Your task to perform on an android device: View the shopping cart on newegg.com. Add "logitech g pro" to the cart on newegg.com, then select checkout. Image 0: 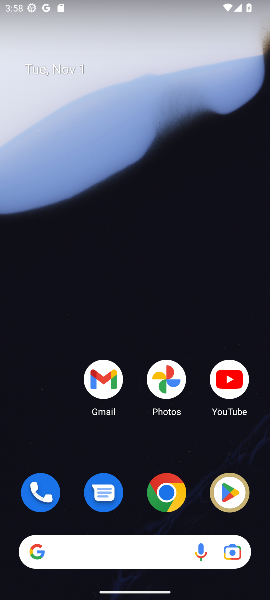
Step 0: click (161, 499)
Your task to perform on an android device: View the shopping cart on newegg.com. Add "logitech g pro" to the cart on newegg.com, then select checkout. Image 1: 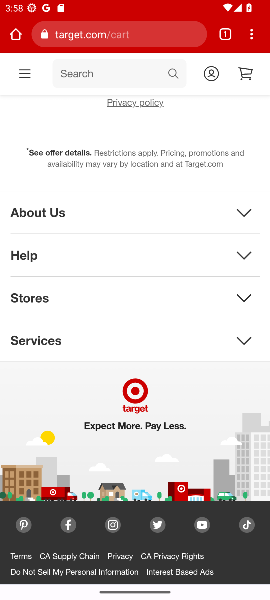
Step 1: click (159, 32)
Your task to perform on an android device: View the shopping cart on newegg.com. Add "logitech g pro" to the cart on newegg.com, then select checkout. Image 2: 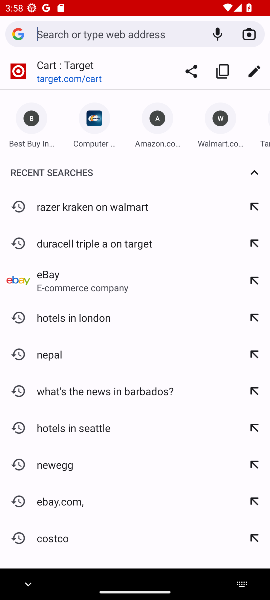
Step 2: type "newegg.com"
Your task to perform on an android device: View the shopping cart on newegg.com. Add "logitech g pro" to the cart on newegg.com, then select checkout. Image 3: 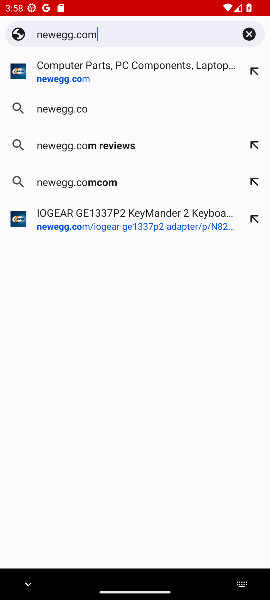
Step 3: type ""
Your task to perform on an android device: View the shopping cart on newegg.com. Add "logitech g pro" to the cart on newegg.com, then select checkout. Image 4: 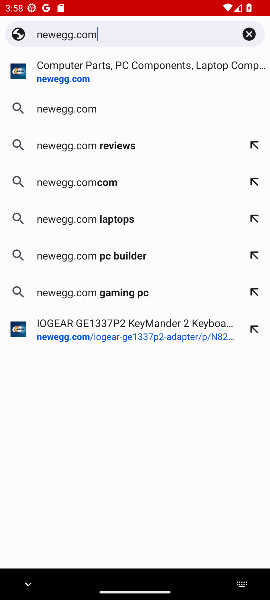
Step 4: click (160, 66)
Your task to perform on an android device: View the shopping cart on newegg.com. Add "logitech g pro" to the cart on newegg.com, then select checkout. Image 5: 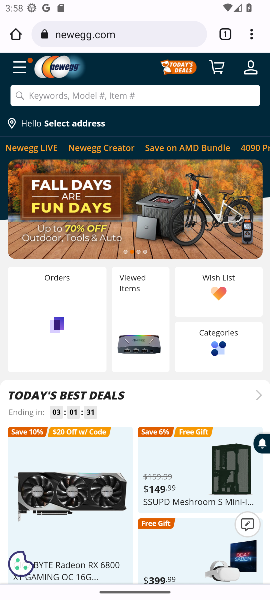
Step 5: click (117, 97)
Your task to perform on an android device: View the shopping cart on newegg.com. Add "logitech g pro" to the cart on newegg.com, then select checkout. Image 6: 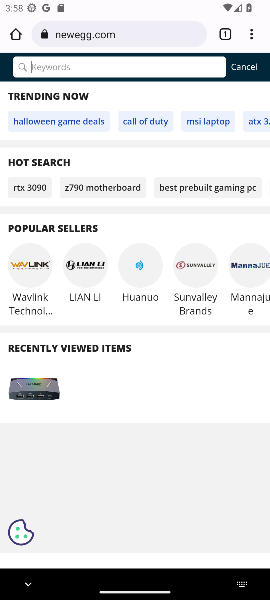
Step 6: type "logitech g pro"
Your task to perform on an android device: View the shopping cart on newegg.com. Add "logitech g pro" to the cart on newegg.com, then select checkout. Image 7: 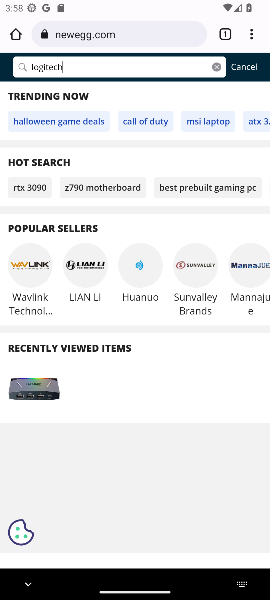
Step 7: type ""
Your task to perform on an android device: View the shopping cart on newegg.com. Add "logitech g pro" to the cart on newegg.com, then select checkout. Image 8: 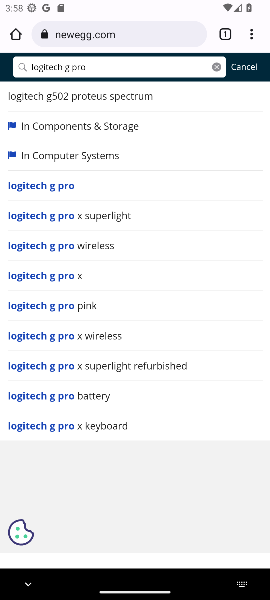
Step 8: click (72, 185)
Your task to perform on an android device: View the shopping cart on newegg.com. Add "logitech g pro" to the cart on newegg.com, then select checkout. Image 9: 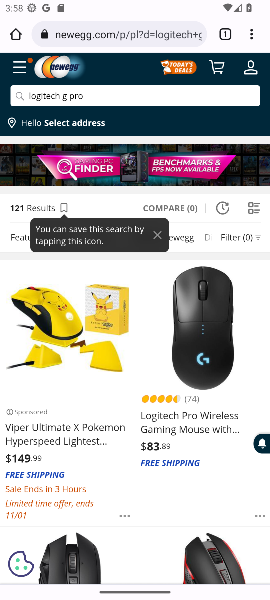
Step 9: drag from (213, 399) to (213, 259)
Your task to perform on an android device: View the shopping cart on newegg.com. Add "logitech g pro" to the cart on newegg.com, then select checkout. Image 10: 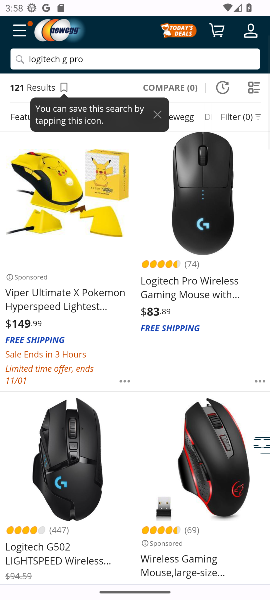
Step 10: drag from (95, 464) to (138, 315)
Your task to perform on an android device: View the shopping cart on newegg.com. Add "logitech g pro" to the cart on newegg.com, then select checkout. Image 11: 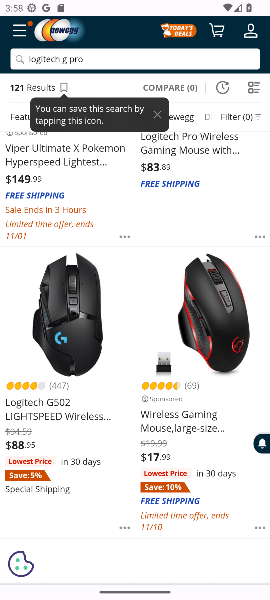
Step 11: drag from (119, 287) to (110, 477)
Your task to perform on an android device: View the shopping cart on newegg.com. Add "logitech g pro" to the cart on newegg.com, then select checkout. Image 12: 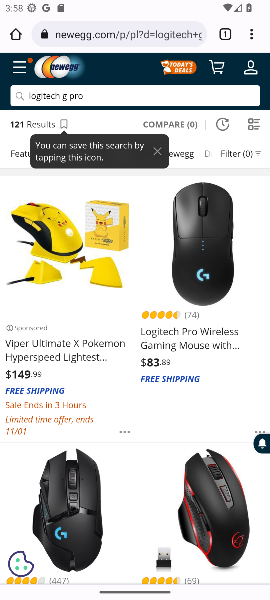
Step 12: click (217, 278)
Your task to perform on an android device: View the shopping cart on newegg.com. Add "logitech g pro" to the cart on newegg.com, then select checkout. Image 13: 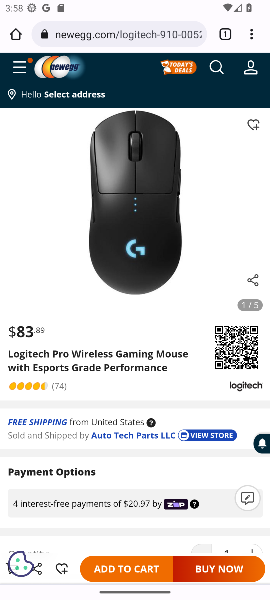
Step 13: click (130, 570)
Your task to perform on an android device: View the shopping cart on newegg.com. Add "logitech g pro" to the cart on newegg.com, then select checkout. Image 14: 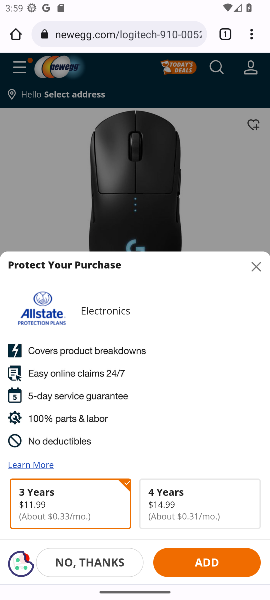
Step 14: click (199, 569)
Your task to perform on an android device: View the shopping cart on newegg.com. Add "logitech g pro" to the cart on newegg.com, then select checkout. Image 15: 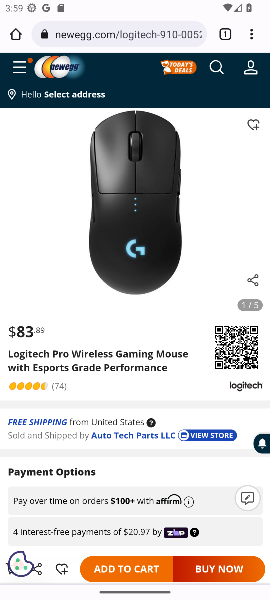
Step 15: drag from (120, 540) to (103, 398)
Your task to perform on an android device: View the shopping cart on newegg.com. Add "logitech g pro" to the cart on newegg.com, then select checkout. Image 16: 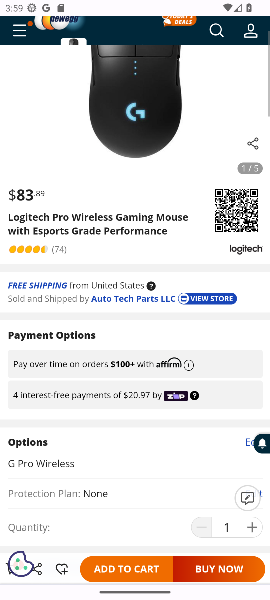
Step 16: drag from (101, 484) to (127, 382)
Your task to perform on an android device: View the shopping cart on newegg.com. Add "logitech g pro" to the cart on newegg.com, then select checkout. Image 17: 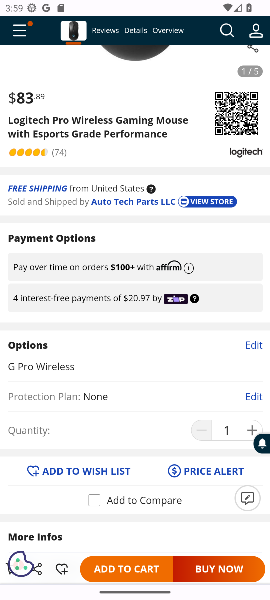
Step 17: drag from (78, 489) to (117, 341)
Your task to perform on an android device: View the shopping cart on newegg.com. Add "logitech g pro" to the cart on newegg.com, then select checkout. Image 18: 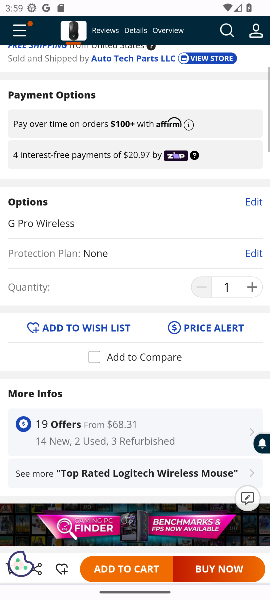
Step 18: drag from (123, 483) to (153, 310)
Your task to perform on an android device: View the shopping cart on newegg.com. Add "logitech g pro" to the cart on newegg.com, then select checkout. Image 19: 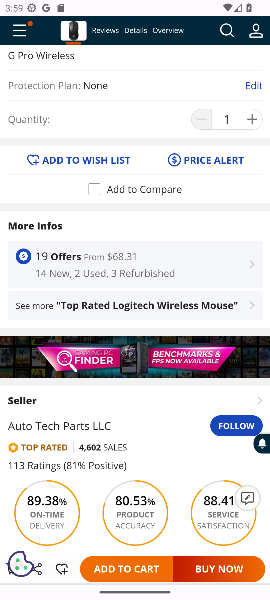
Step 19: drag from (151, 313) to (156, 481)
Your task to perform on an android device: View the shopping cart on newegg.com. Add "logitech g pro" to the cart on newegg.com, then select checkout. Image 20: 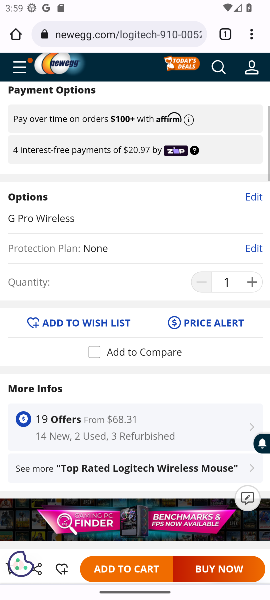
Step 20: drag from (145, 300) to (146, 458)
Your task to perform on an android device: View the shopping cart on newegg.com. Add "logitech g pro" to the cart on newegg.com, then select checkout. Image 21: 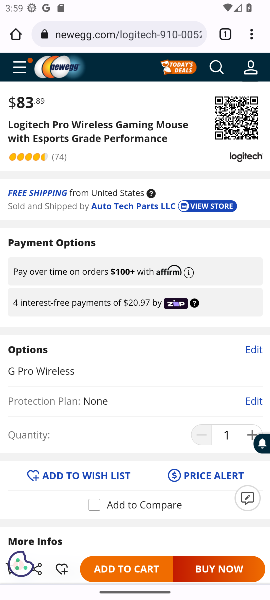
Step 21: click (108, 565)
Your task to perform on an android device: View the shopping cart on newegg.com. Add "logitech g pro" to the cart on newegg.com, then select checkout. Image 22: 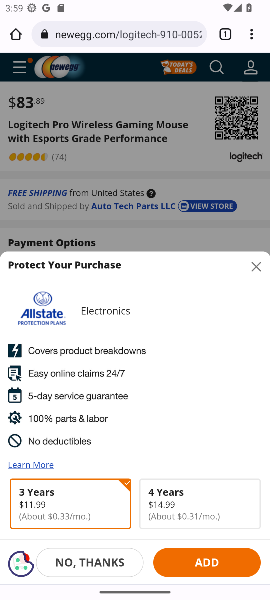
Step 22: click (187, 570)
Your task to perform on an android device: View the shopping cart on newegg.com. Add "logitech g pro" to the cart on newegg.com, then select checkout. Image 23: 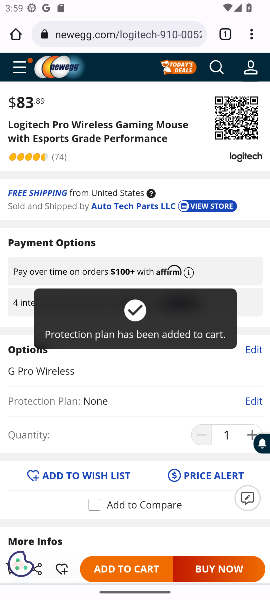
Step 23: drag from (99, 342) to (186, 129)
Your task to perform on an android device: View the shopping cart on newegg.com. Add "logitech g pro" to the cart on newegg.com, then select checkout. Image 24: 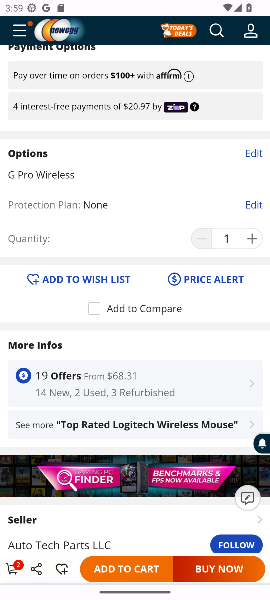
Step 24: drag from (172, 322) to (230, 157)
Your task to perform on an android device: View the shopping cart on newegg.com. Add "logitech g pro" to the cart on newegg.com, then select checkout. Image 25: 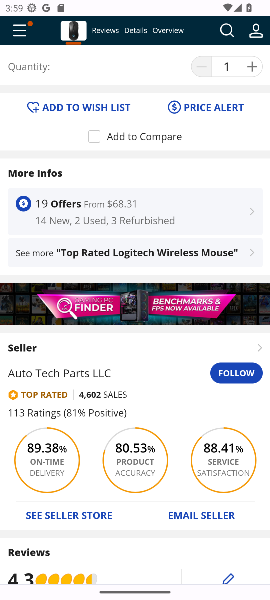
Step 25: drag from (169, 304) to (187, 225)
Your task to perform on an android device: View the shopping cart on newegg.com. Add "logitech g pro" to the cart on newegg.com, then select checkout. Image 26: 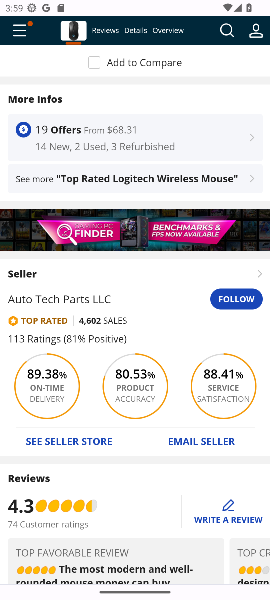
Step 26: drag from (136, 413) to (177, 245)
Your task to perform on an android device: View the shopping cart on newegg.com. Add "logitech g pro" to the cart on newegg.com, then select checkout. Image 27: 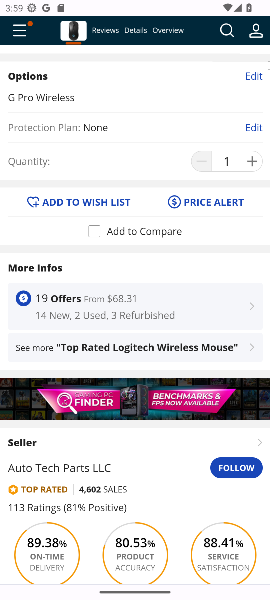
Step 27: drag from (147, 408) to (169, 246)
Your task to perform on an android device: View the shopping cart on newegg.com. Add "logitech g pro" to the cart on newegg.com, then select checkout. Image 28: 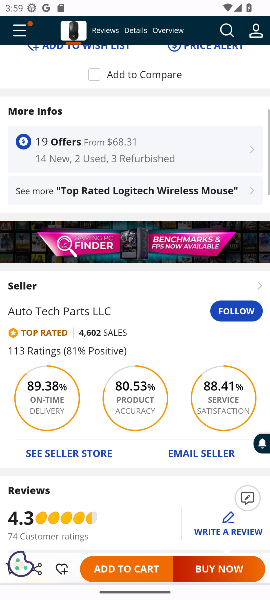
Step 28: drag from (132, 383) to (166, 210)
Your task to perform on an android device: View the shopping cart on newegg.com. Add "logitech g pro" to the cart on newegg.com, then select checkout. Image 29: 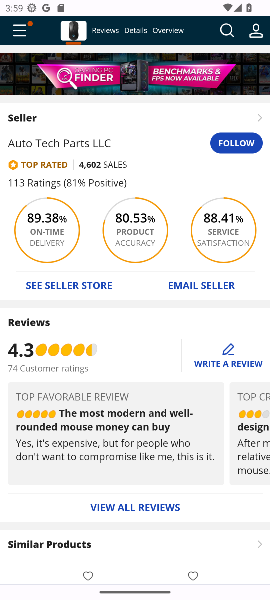
Step 29: drag from (176, 361) to (220, 207)
Your task to perform on an android device: View the shopping cart on newegg.com. Add "logitech g pro" to the cart on newegg.com, then select checkout. Image 30: 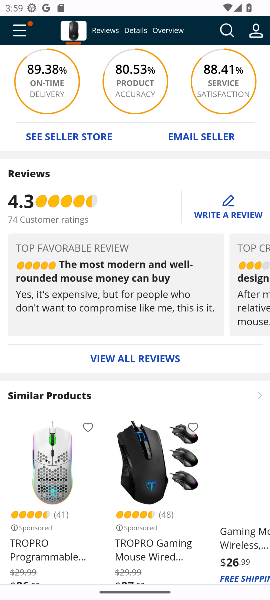
Step 30: drag from (192, 338) to (222, 215)
Your task to perform on an android device: View the shopping cart on newegg.com. Add "logitech g pro" to the cart on newegg.com, then select checkout. Image 31: 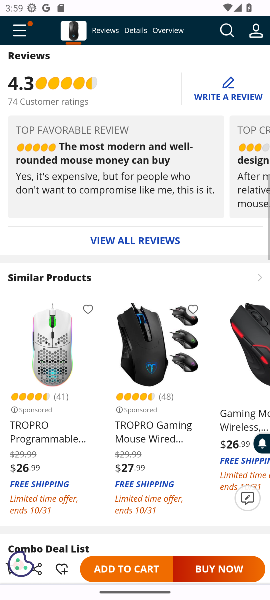
Step 31: drag from (209, 371) to (236, 209)
Your task to perform on an android device: View the shopping cart on newegg.com. Add "logitech g pro" to the cart on newegg.com, then select checkout. Image 32: 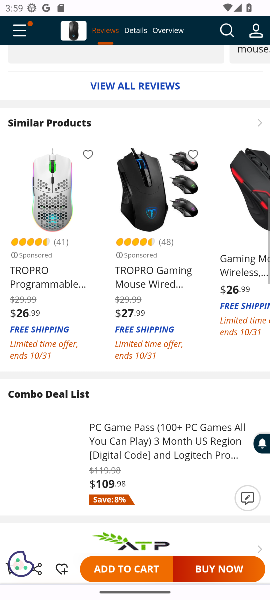
Step 32: drag from (184, 341) to (193, 200)
Your task to perform on an android device: View the shopping cart on newegg.com. Add "logitech g pro" to the cart on newegg.com, then select checkout. Image 33: 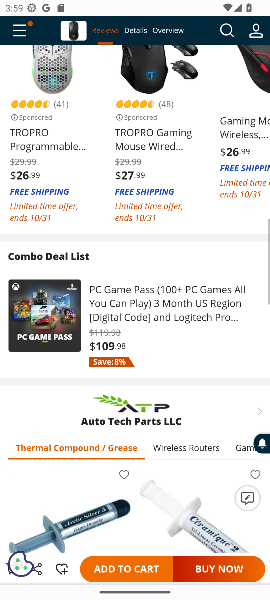
Step 33: drag from (147, 405) to (177, 226)
Your task to perform on an android device: View the shopping cart on newegg.com. Add "logitech g pro" to the cart on newegg.com, then select checkout. Image 34: 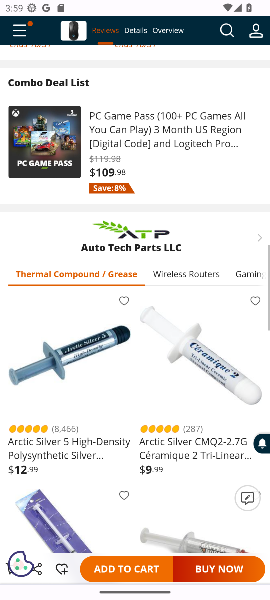
Step 34: drag from (143, 409) to (152, 235)
Your task to perform on an android device: View the shopping cart on newegg.com. Add "logitech g pro" to the cart on newegg.com, then select checkout. Image 35: 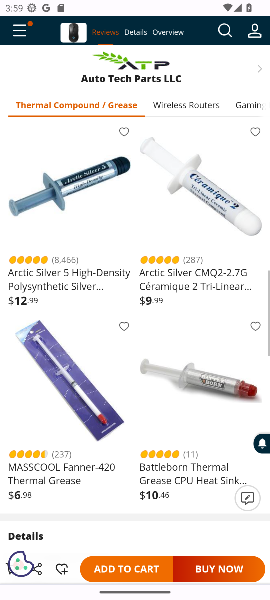
Step 35: drag from (125, 320) to (141, 216)
Your task to perform on an android device: View the shopping cart on newegg.com. Add "logitech g pro" to the cart on newegg.com, then select checkout. Image 36: 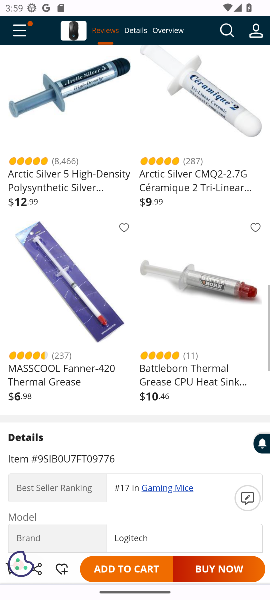
Step 36: drag from (130, 330) to (175, 202)
Your task to perform on an android device: View the shopping cart on newegg.com. Add "logitech g pro" to the cart on newegg.com, then select checkout. Image 37: 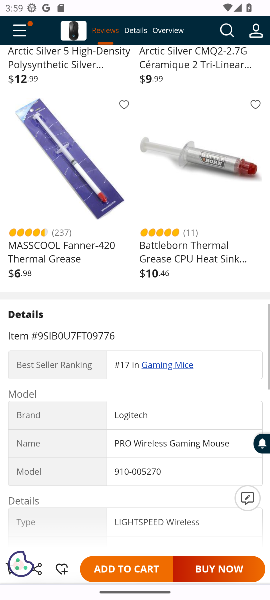
Step 37: drag from (154, 277) to (168, 240)
Your task to perform on an android device: View the shopping cart on newegg.com. Add "logitech g pro" to the cart on newegg.com, then select checkout. Image 38: 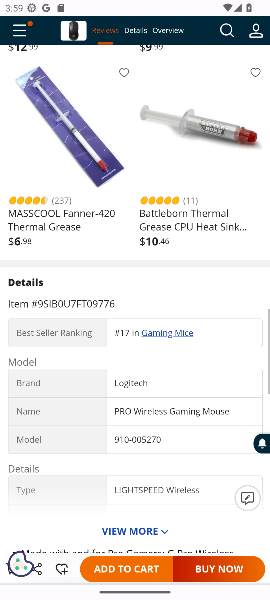
Step 38: drag from (126, 389) to (176, 208)
Your task to perform on an android device: View the shopping cart on newegg.com. Add "logitech g pro" to the cart on newegg.com, then select checkout. Image 39: 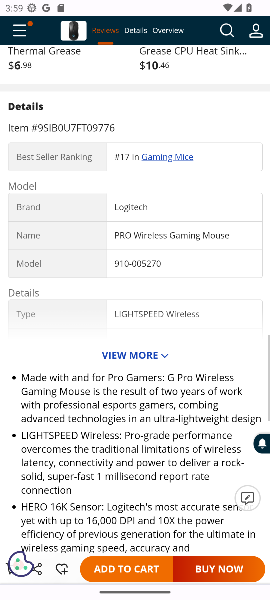
Step 39: click (187, 154)
Your task to perform on an android device: View the shopping cart on newegg.com. Add "logitech g pro" to the cart on newegg.com, then select checkout. Image 40: 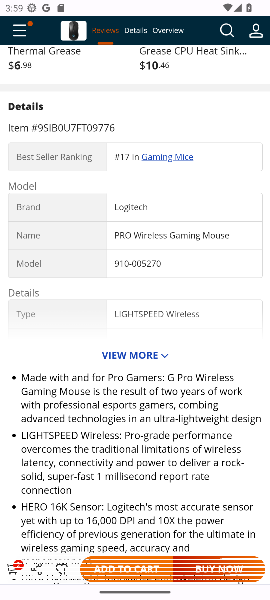
Step 40: task complete